Your task to perform on an android device: change text size in settings app Image 0: 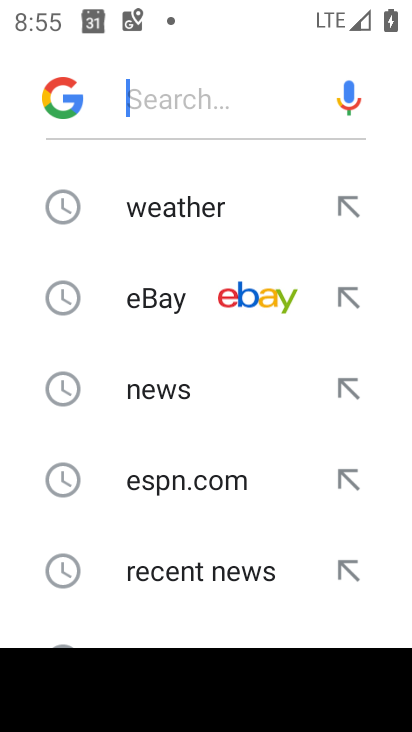
Step 0: press back button
Your task to perform on an android device: change text size in settings app Image 1: 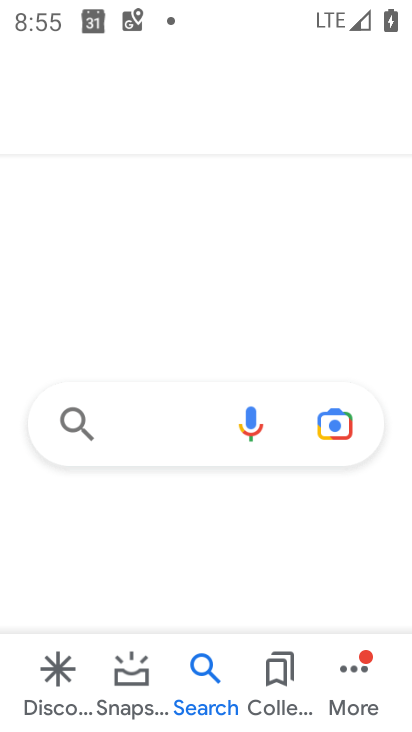
Step 1: press back button
Your task to perform on an android device: change text size in settings app Image 2: 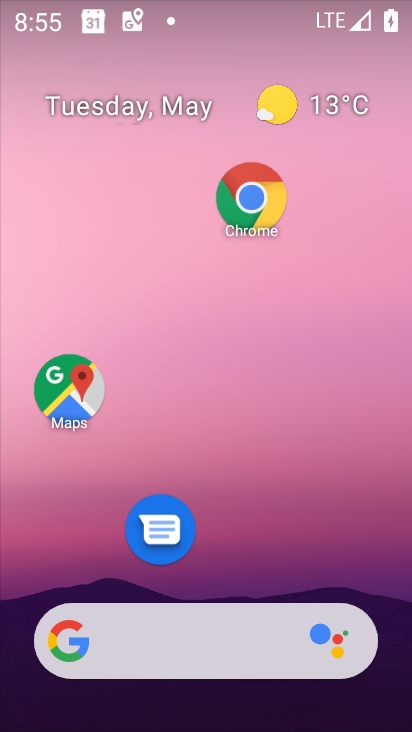
Step 2: drag from (352, 525) to (300, 230)
Your task to perform on an android device: change text size in settings app Image 3: 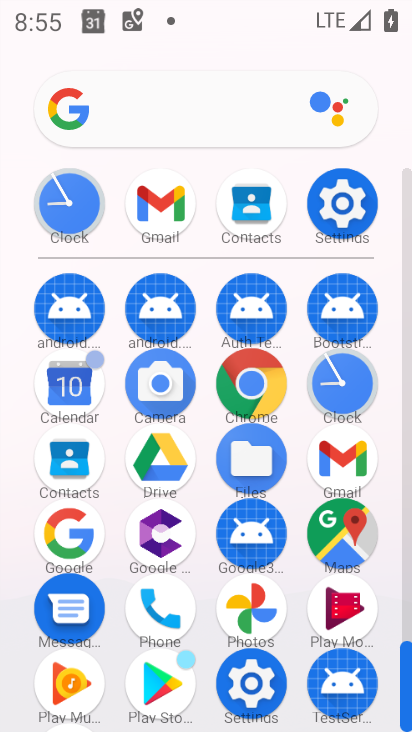
Step 3: click (252, 677)
Your task to perform on an android device: change text size in settings app Image 4: 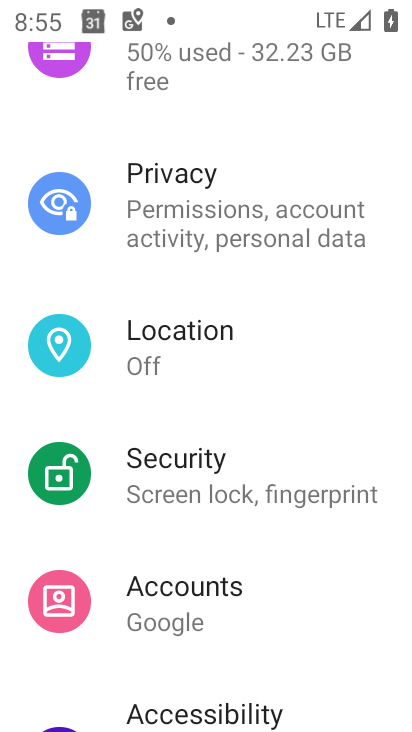
Step 4: task complete